Your task to perform on an android device: create a new album in the google photos Image 0: 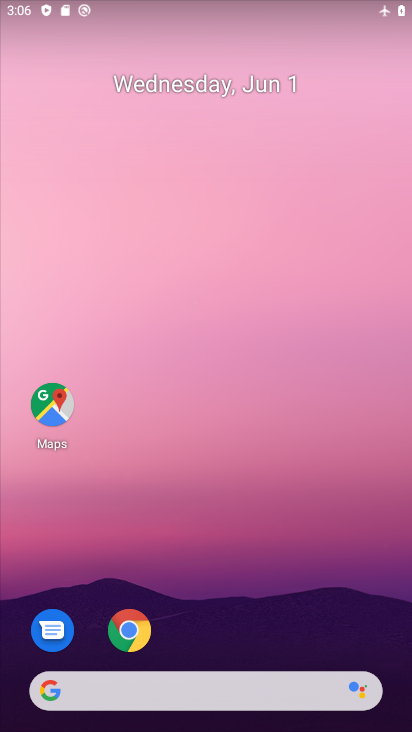
Step 0: press home button
Your task to perform on an android device: create a new album in the google photos Image 1: 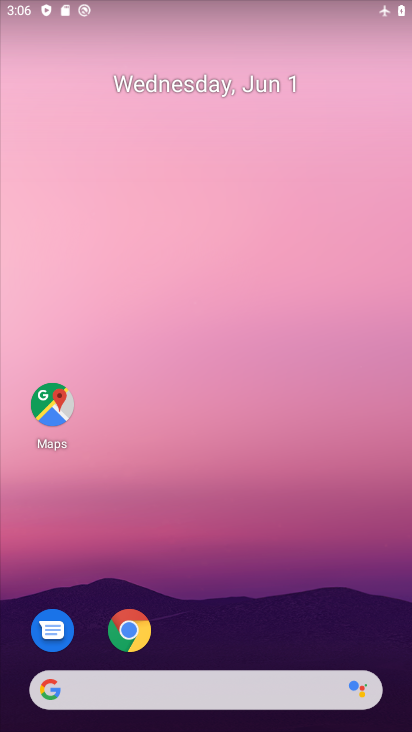
Step 1: drag from (262, 628) to (238, 220)
Your task to perform on an android device: create a new album in the google photos Image 2: 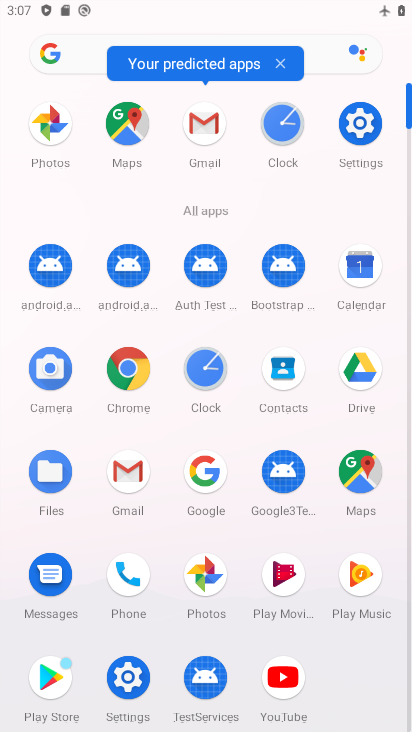
Step 2: click (204, 585)
Your task to perform on an android device: create a new album in the google photos Image 3: 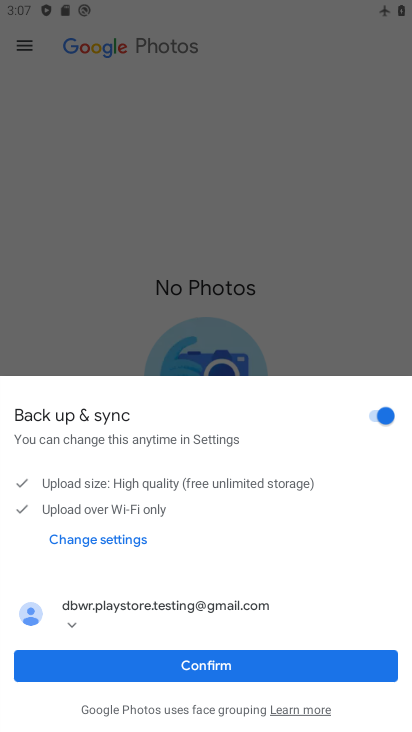
Step 3: click (236, 665)
Your task to perform on an android device: create a new album in the google photos Image 4: 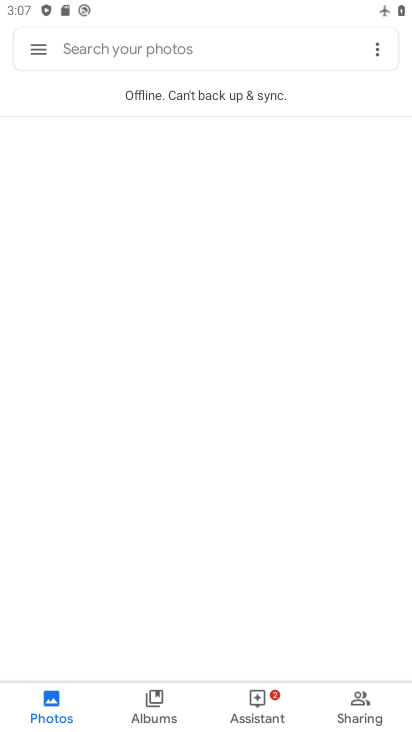
Step 4: click (38, 50)
Your task to perform on an android device: create a new album in the google photos Image 5: 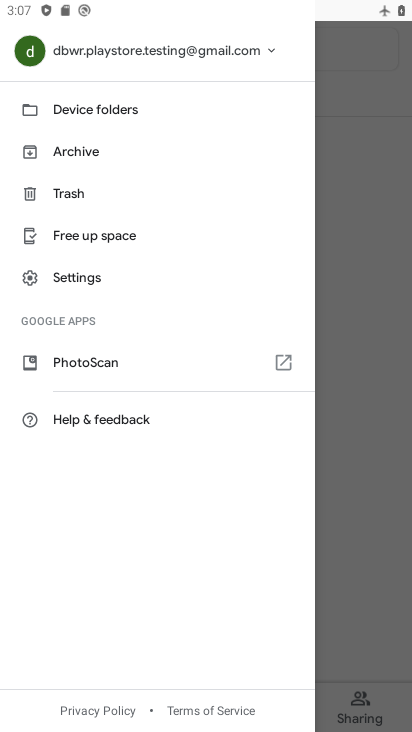
Step 5: click (373, 244)
Your task to perform on an android device: create a new album in the google photos Image 6: 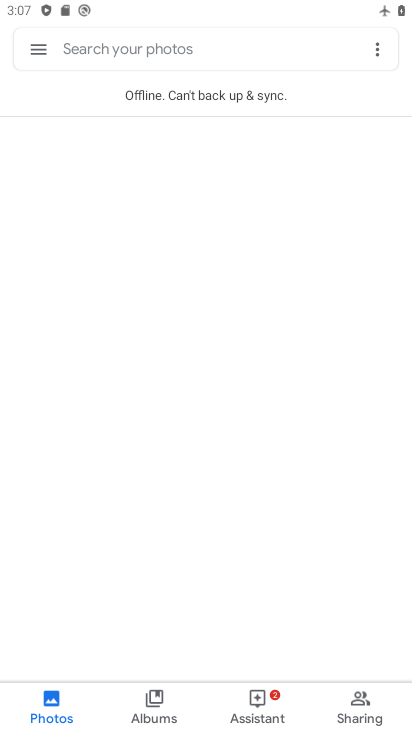
Step 6: click (50, 694)
Your task to perform on an android device: create a new album in the google photos Image 7: 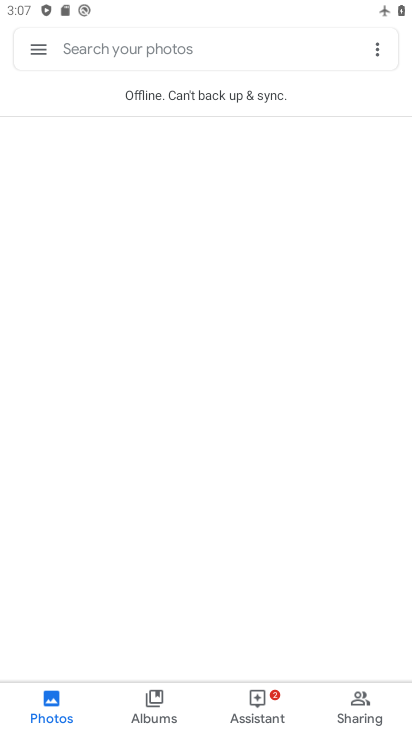
Step 7: click (383, 51)
Your task to perform on an android device: create a new album in the google photos Image 8: 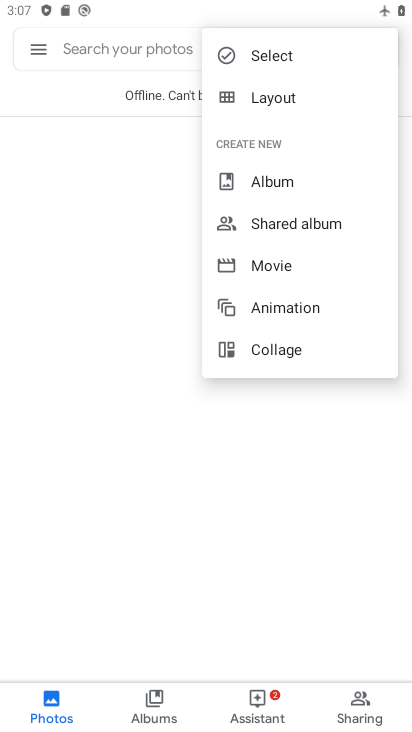
Step 8: click (267, 178)
Your task to perform on an android device: create a new album in the google photos Image 9: 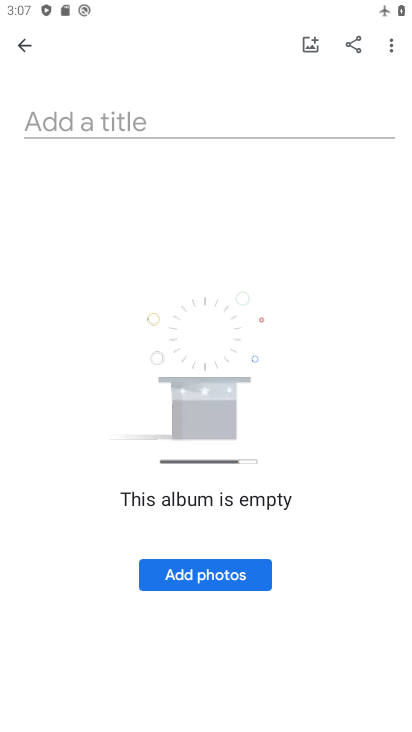
Step 9: task complete